Your task to perform on an android device: add a contact Image 0: 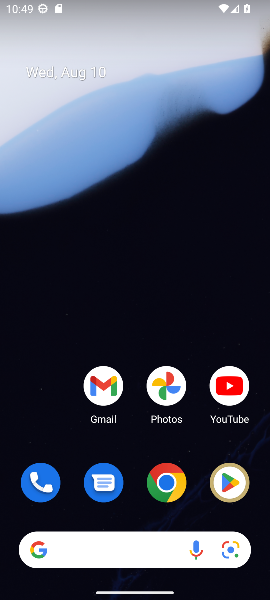
Step 0: drag from (62, 408) to (84, 175)
Your task to perform on an android device: add a contact Image 1: 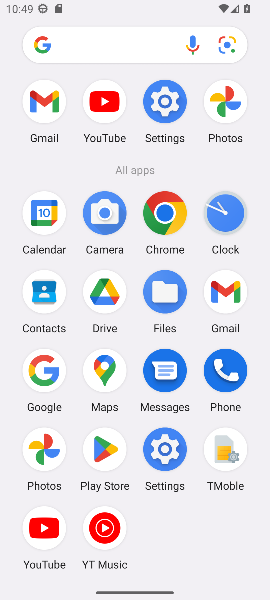
Step 1: click (56, 305)
Your task to perform on an android device: add a contact Image 2: 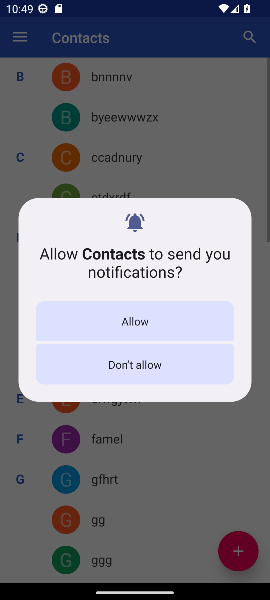
Step 2: click (133, 325)
Your task to perform on an android device: add a contact Image 3: 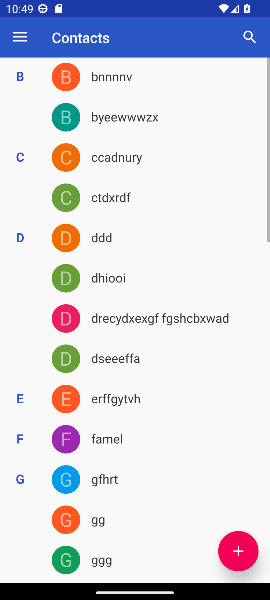
Step 3: click (240, 545)
Your task to perform on an android device: add a contact Image 4: 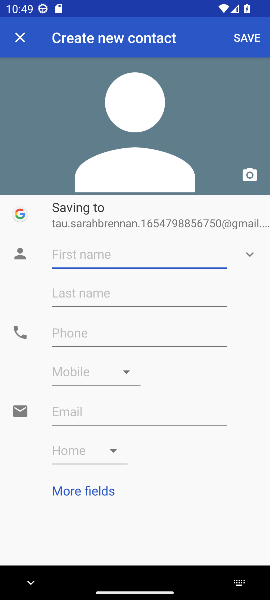
Step 4: type "dfvdc"
Your task to perform on an android device: add a contact Image 5: 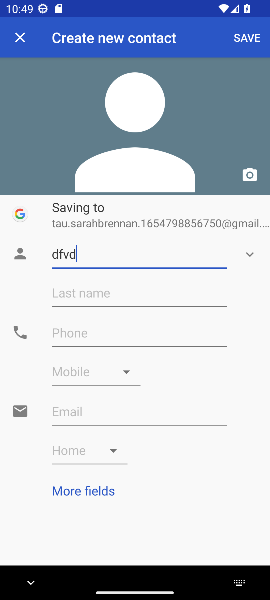
Step 5: type ""
Your task to perform on an android device: add a contact Image 6: 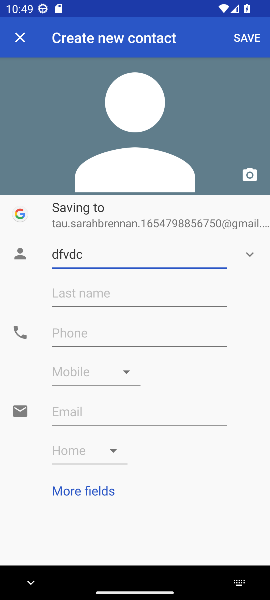
Step 6: press enter
Your task to perform on an android device: add a contact Image 7: 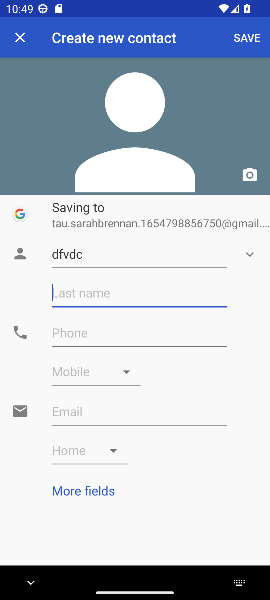
Step 7: click (132, 339)
Your task to perform on an android device: add a contact Image 8: 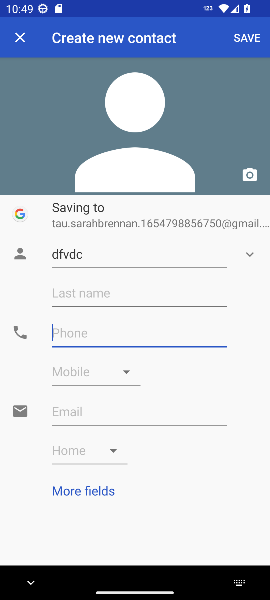
Step 8: type "3425542"
Your task to perform on an android device: add a contact Image 9: 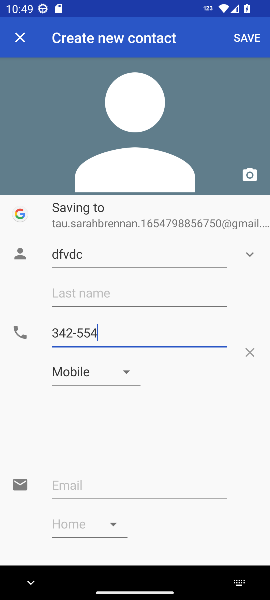
Step 9: type ""
Your task to perform on an android device: add a contact Image 10: 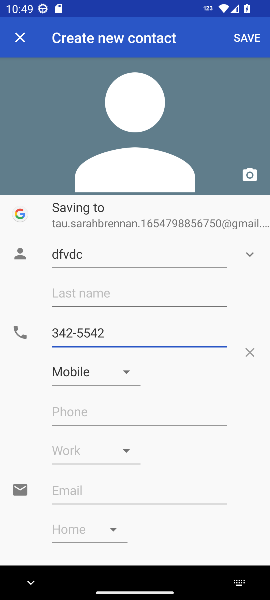
Step 10: press enter
Your task to perform on an android device: add a contact Image 11: 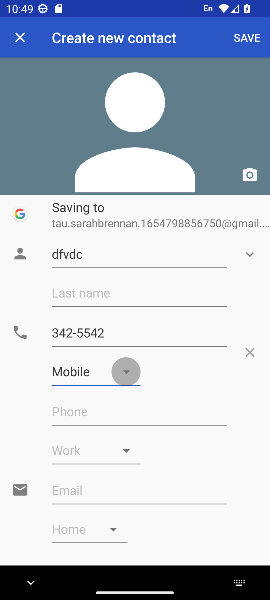
Step 11: click (242, 36)
Your task to perform on an android device: add a contact Image 12: 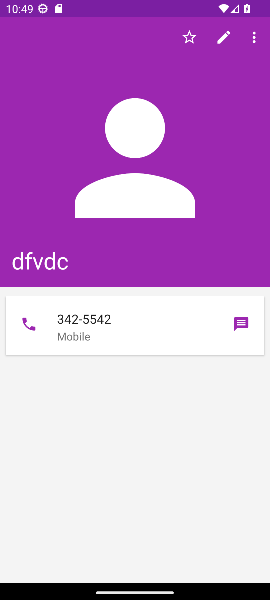
Step 12: task complete